Your task to perform on an android device: delete browsing data in the chrome app Image 0: 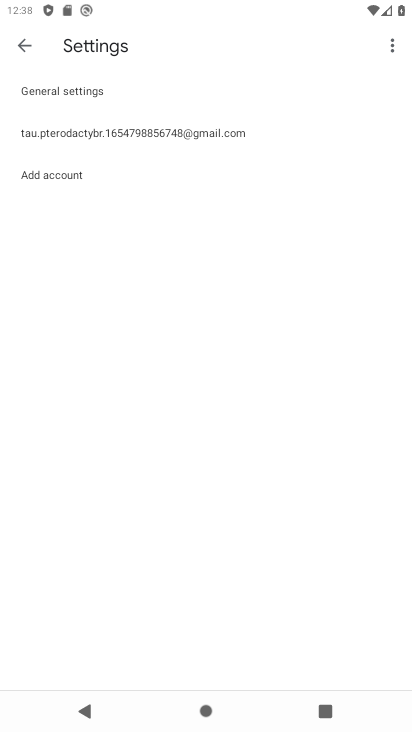
Step 0: press home button
Your task to perform on an android device: delete browsing data in the chrome app Image 1: 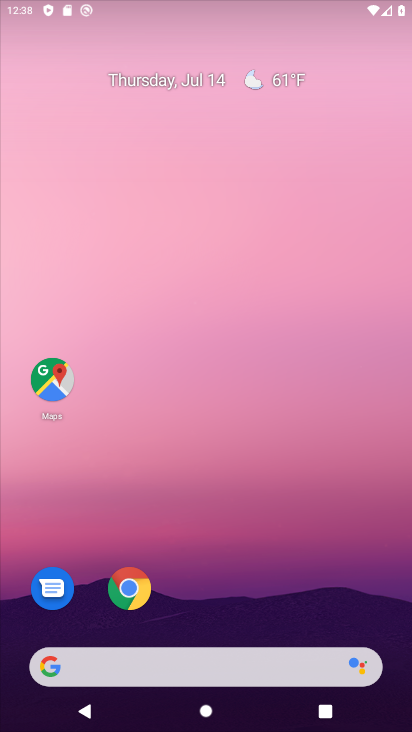
Step 1: drag from (166, 556) to (227, 232)
Your task to perform on an android device: delete browsing data in the chrome app Image 2: 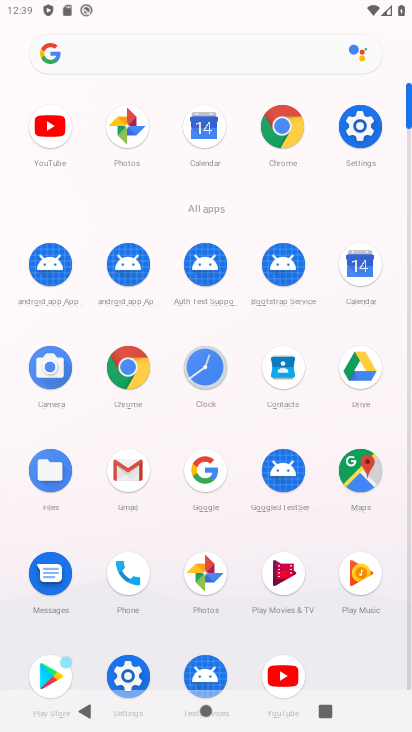
Step 2: click (270, 124)
Your task to perform on an android device: delete browsing data in the chrome app Image 3: 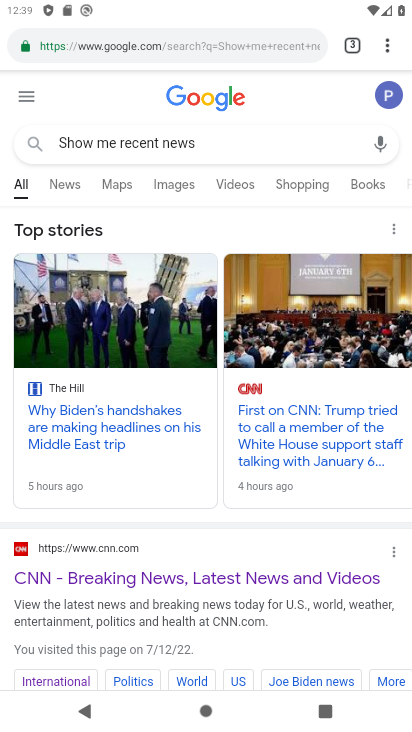
Step 3: click (386, 43)
Your task to perform on an android device: delete browsing data in the chrome app Image 4: 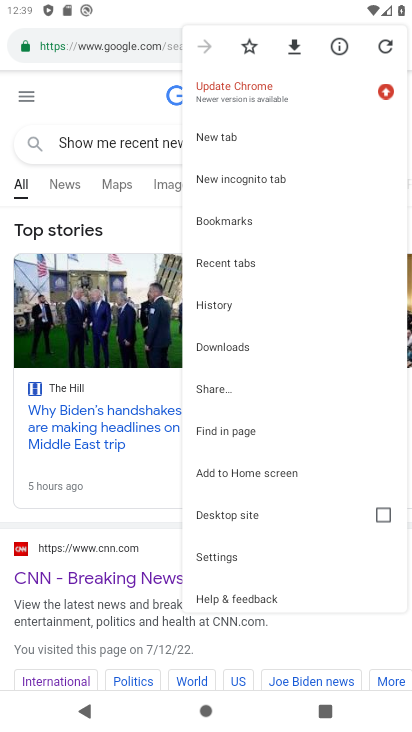
Step 4: click (226, 550)
Your task to perform on an android device: delete browsing data in the chrome app Image 5: 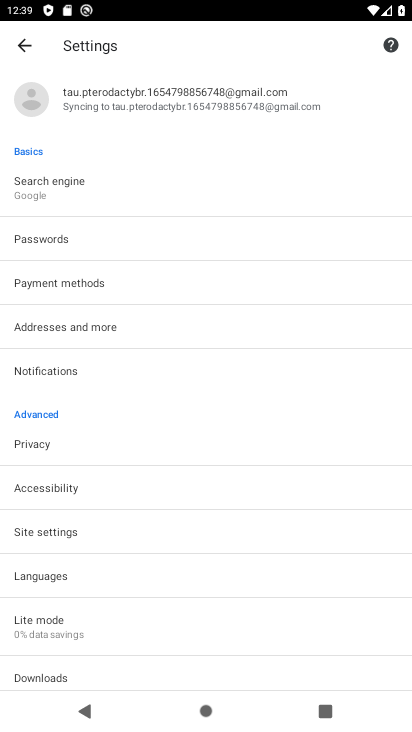
Step 5: drag from (140, 564) to (175, 333)
Your task to perform on an android device: delete browsing data in the chrome app Image 6: 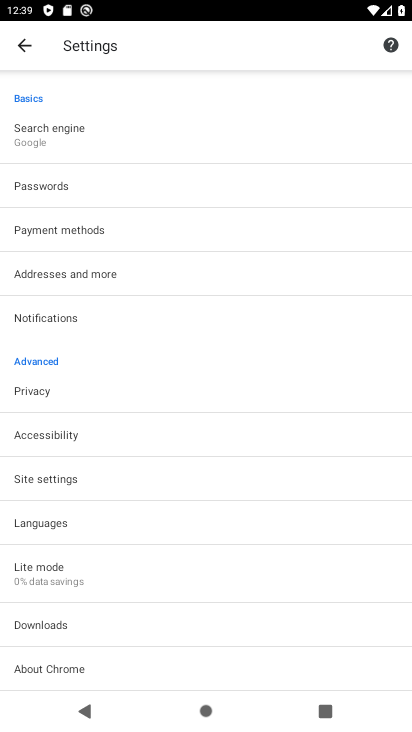
Step 6: click (68, 388)
Your task to perform on an android device: delete browsing data in the chrome app Image 7: 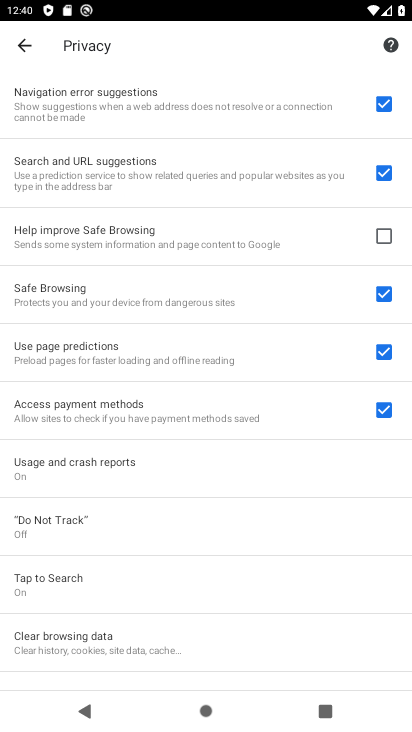
Step 7: drag from (168, 584) to (216, 275)
Your task to perform on an android device: delete browsing data in the chrome app Image 8: 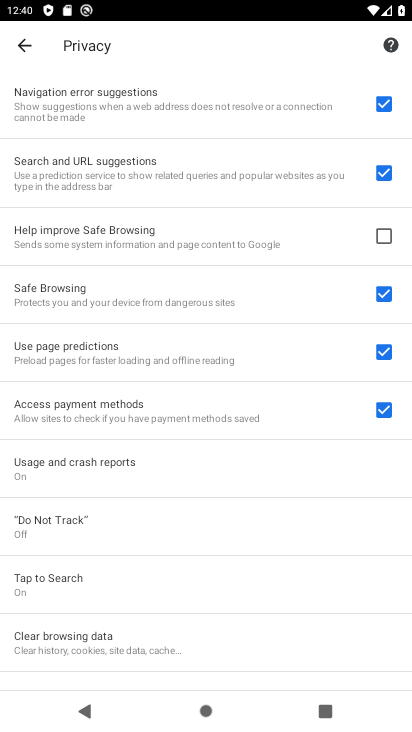
Step 8: click (93, 641)
Your task to perform on an android device: delete browsing data in the chrome app Image 9: 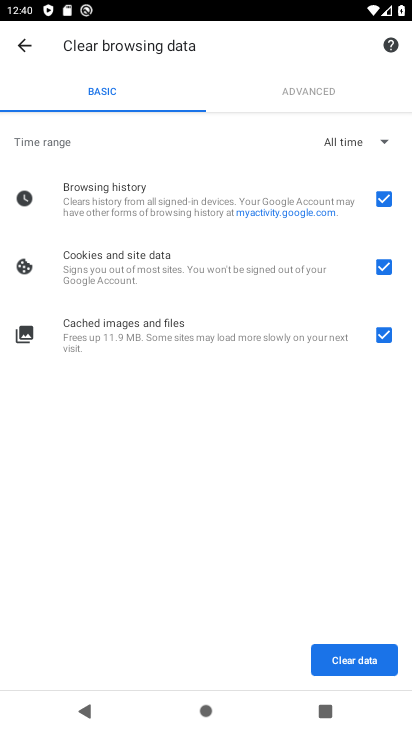
Step 9: click (347, 655)
Your task to perform on an android device: delete browsing data in the chrome app Image 10: 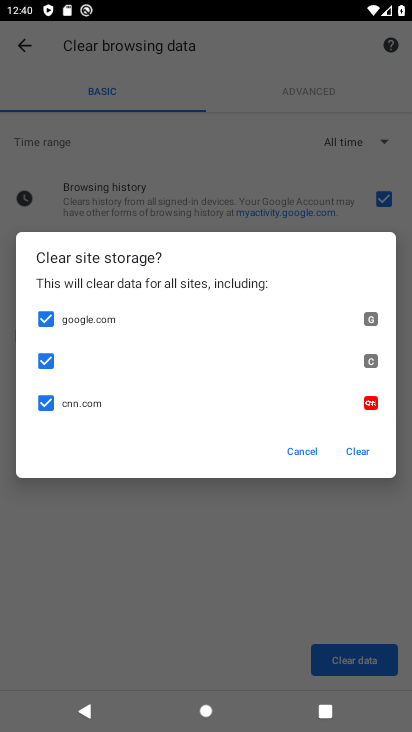
Step 10: click (365, 453)
Your task to perform on an android device: delete browsing data in the chrome app Image 11: 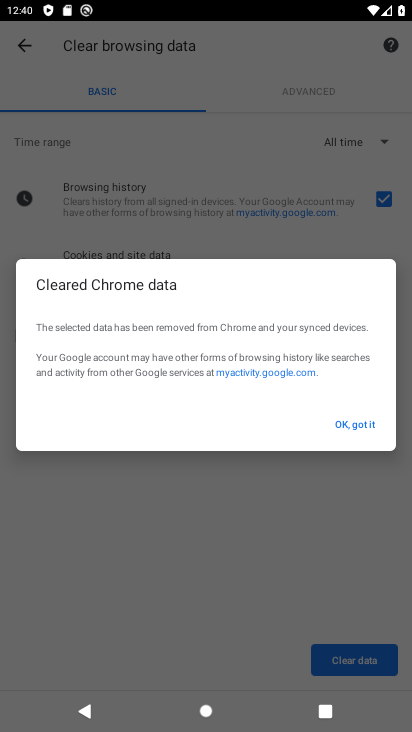
Step 11: click (362, 412)
Your task to perform on an android device: delete browsing data in the chrome app Image 12: 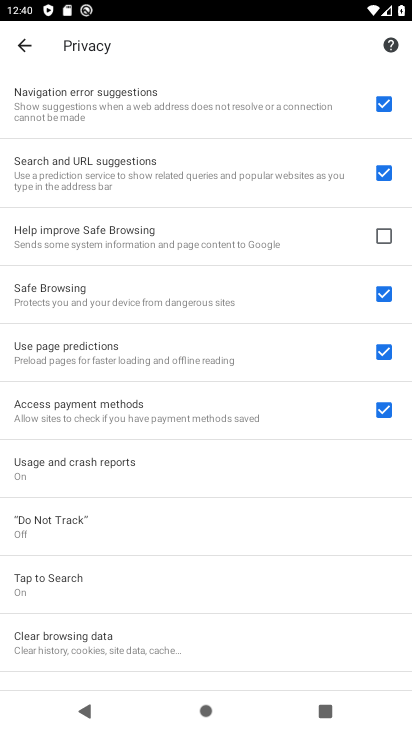
Step 12: task complete